Your task to perform on an android device: View the shopping cart on amazon. Add apple airpods pro to the cart on amazon Image 0: 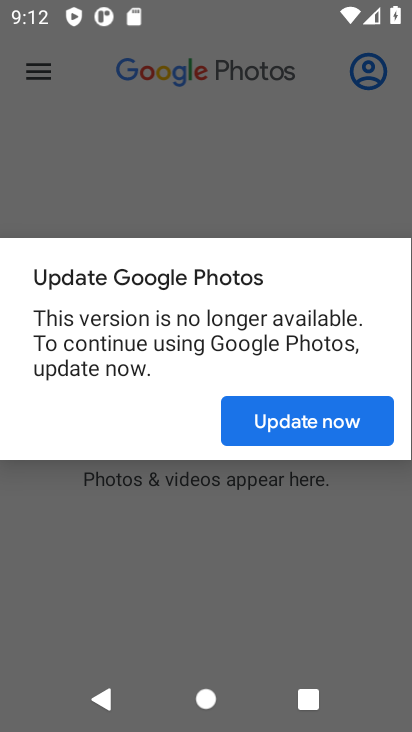
Step 0: press home button
Your task to perform on an android device: View the shopping cart on amazon. Add apple airpods pro to the cart on amazon Image 1: 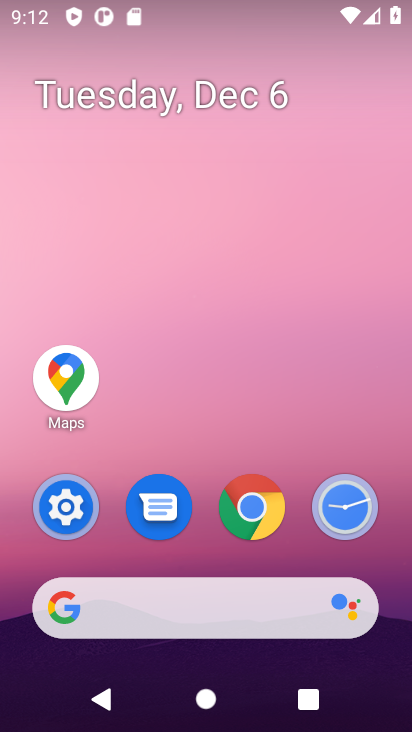
Step 1: click (100, 610)
Your task to perform on an android device: View the shopping cart on amazon. Add apple airpods pro to the cart on amazon Image 2: 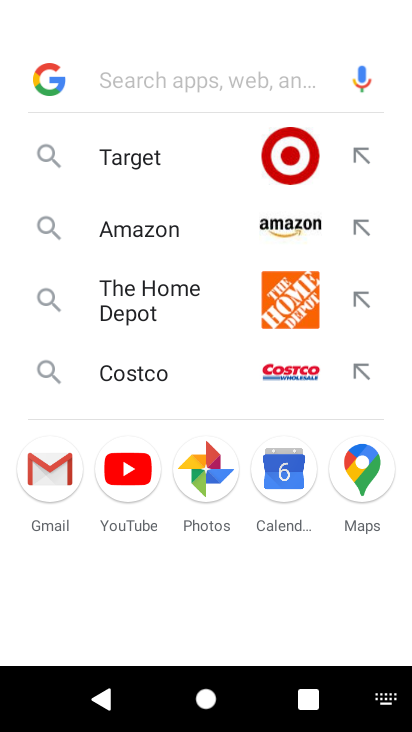
Step 2: click (153, 229)
Your task to perform on an android device: View the shopping cart on amazon. Add apple airpods pro to the cart on amazon Image 3: 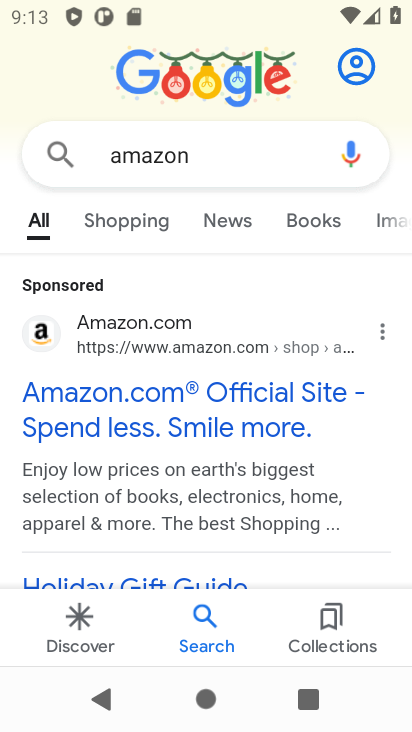
Step 3: click (243, 412)
Your task to perform on an android device: View the shopping cart on amazon. Add apple airpods pro to the cart on amazon Image 4: 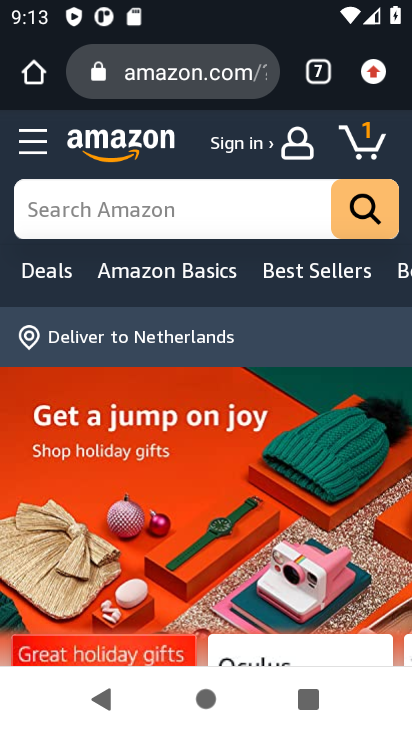
Step 4: click (363, 134)
Your task to perform on an android device: View the shopping cart on amazon. Add apple airpods pro to the cart on amazon Image 5: 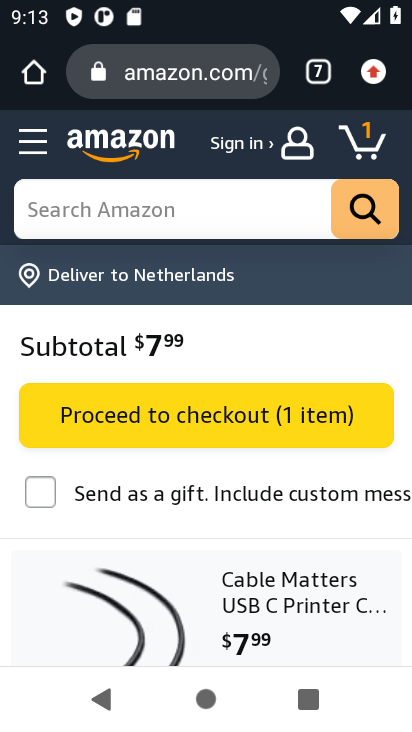
Step 5: click (173, 204)
Your task to perform on an android device: View the shopping cart on amazon. Add apple airpods pro to the cart on amazon Image 6: 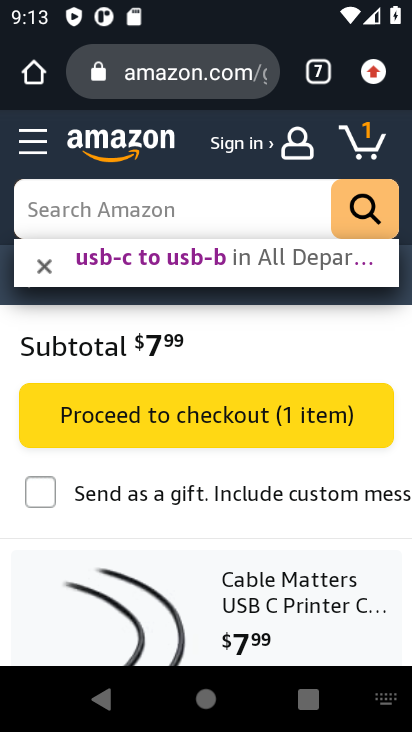
Step 6: type "apple airpods pro"
Your task to perform on an android device: View the shopping cart on amazon. Add apple airpods pro to the cart on amazon Image 7: 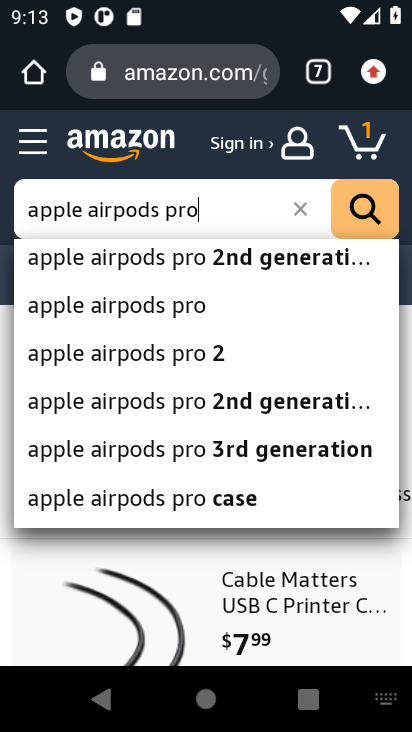
Step 7: click (374, 206)
Your task to perform on an android device: View the shopping cart on amazon. Add apple airpods pro to the cart on amazon Image 8: 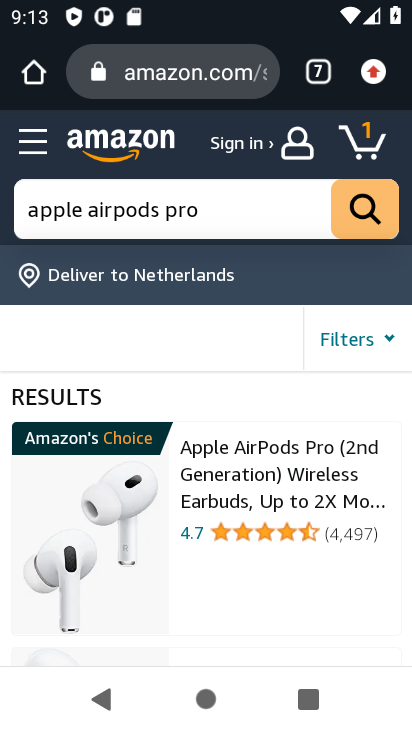
Step 8: click (287, 458)
Your task to perform on an android device: View the shopping cart on amazon. Add apple airpods pro to the cart on amazon Image 9: 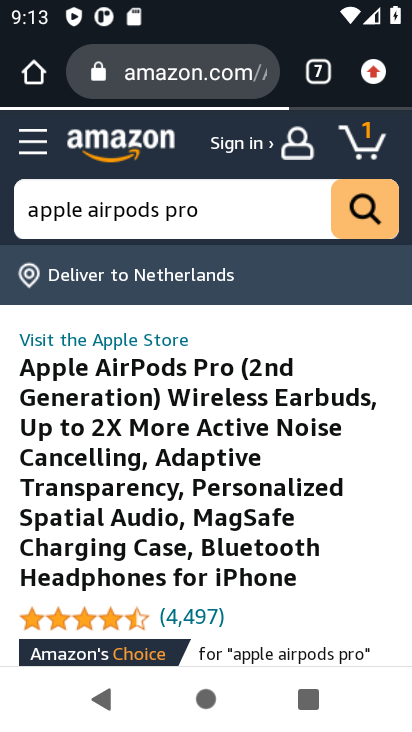
Step 9: drag from (271, 625) to (274, 363)
Your task to perform on an android device: View the shopping cart on amazon. Add apple airpods pro to the cart on amazon Image 10: 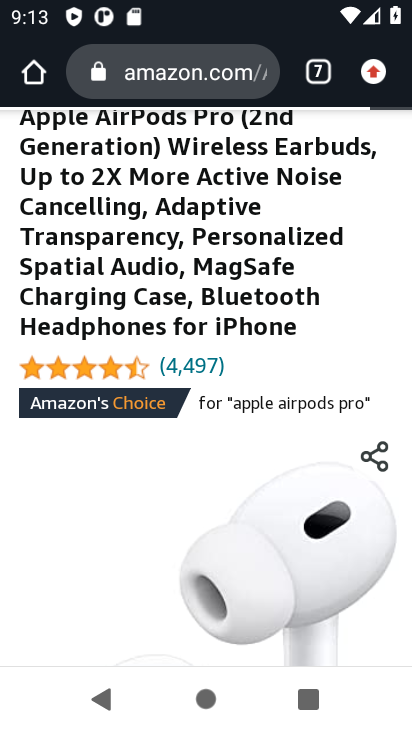
Step 10: drag from (197, 604) to (248, 214)
Your task to perform on an android device: View the shopping cart on amazon. Add apple airpods pro to the cart on amazon Image 11: 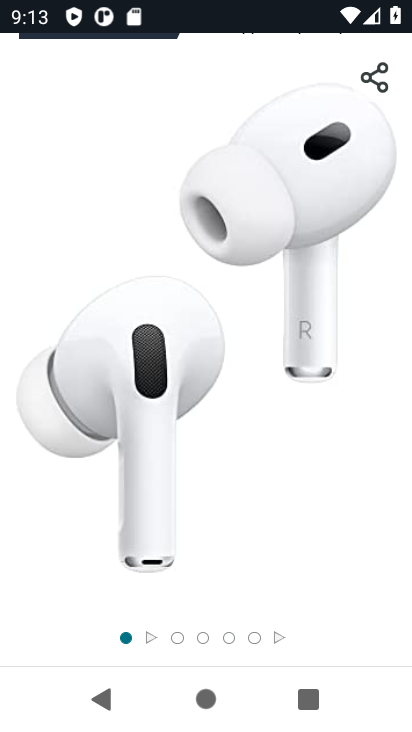
Step 11: drag from (196, 609) to (248, 200)
Your task to perform on an android device: View the shopping cart on amazon. Add apple airpods pro to the cart on amazon Image 12: 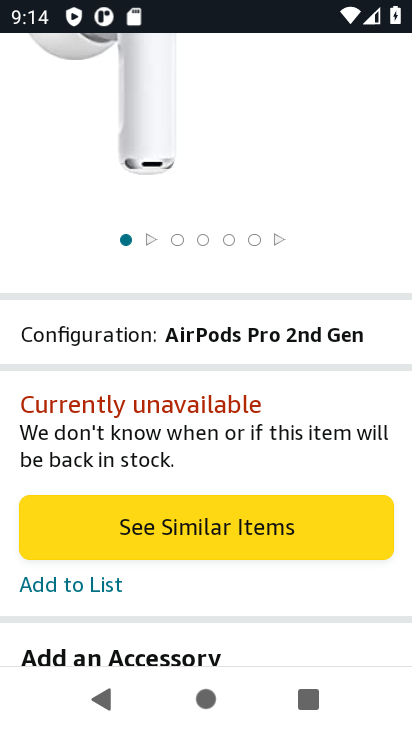
Step 12: drag from (272, 590) to (320, 329)
Your task to perform on an android device: View the shopping cart on amazon. Add apple airpods pro to the cart on amazon Image 13: 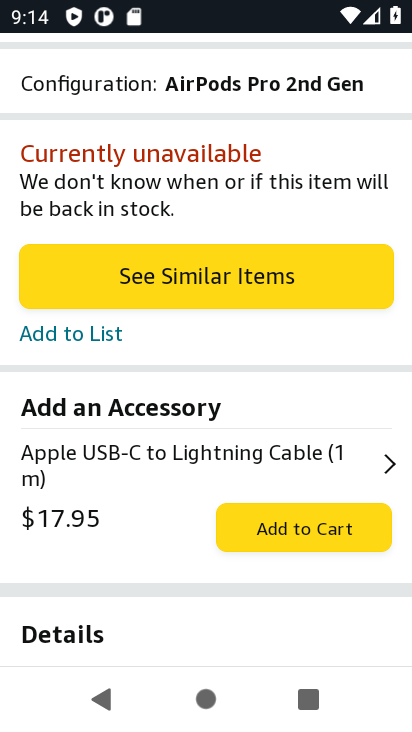
Step 13: press back button
Your task to perform on an android device: View the shopping cart on amazon. Add apple airpods pro to the cart on amazon Image 14: 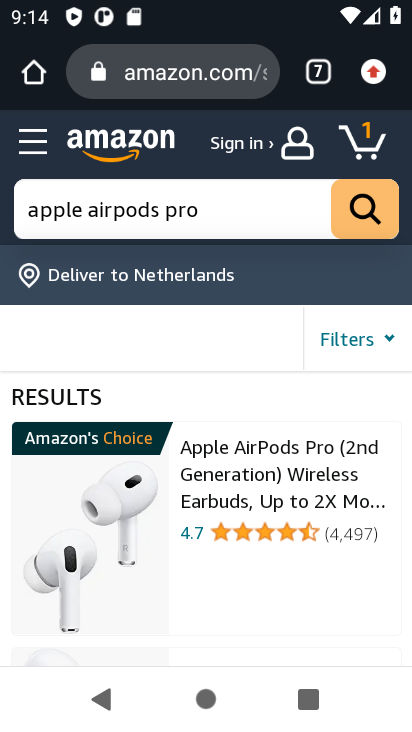
Step 14: drag from (264, 563) to (286, 281)
Your task to perform on an android device: View the shopping cart on amazon. Add apple airpods pro to the cart on amazon Image 15: 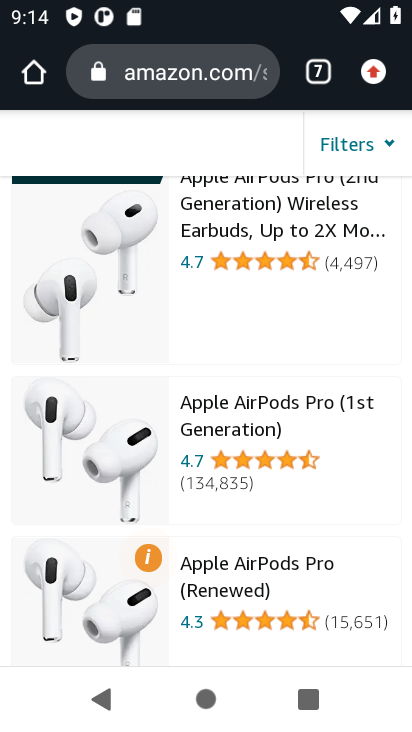
Step 15: click (254, 412)
Your task to perform on an android device: View the shopping cart on amazon. Add apple airpods pro to the cart on amazon Image 16: 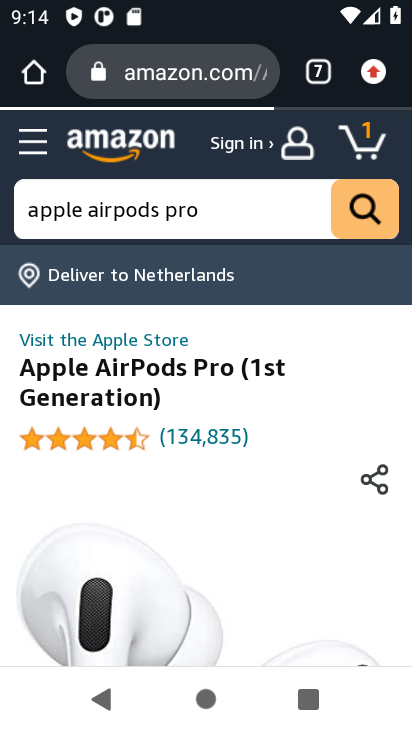
Step 16: task complete